Your task to perform on an android device: add a contact Image 0: 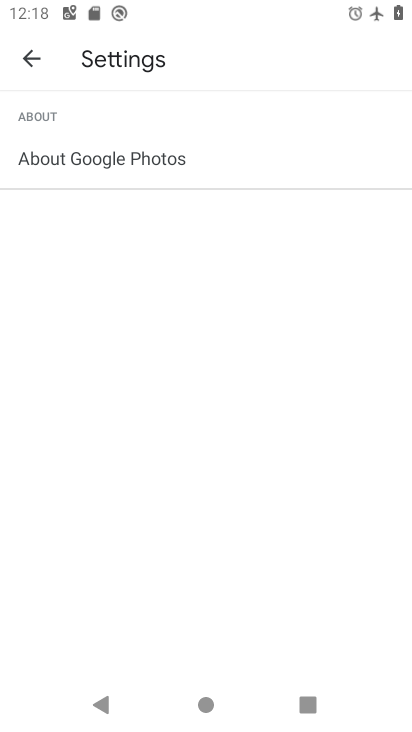
Step 0: click (24, 72)
Your task to perform on an android device: add a contact Image 1: 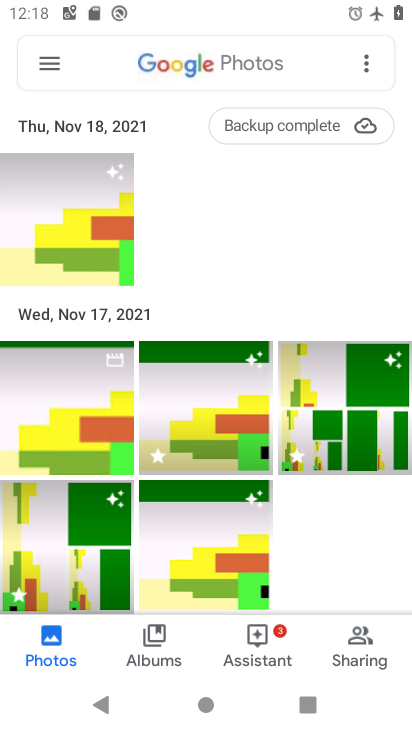
Step 1: press home button
Your task to perform on an android device: add a contact Image 2: 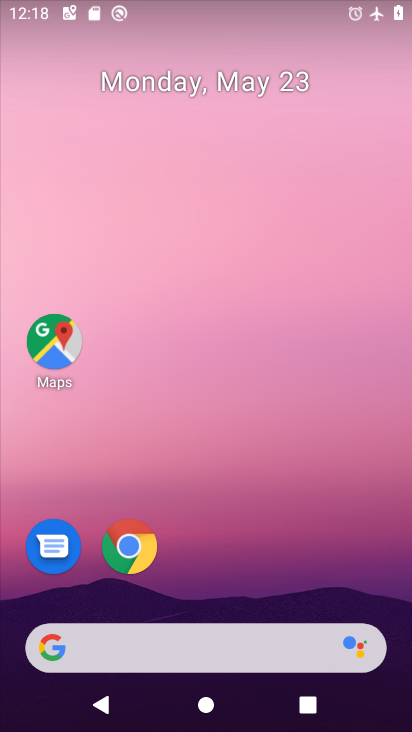
Step 2: drag from (298, 584) to (249, 2)
Your task to perform on an android device: add a contact Image 3: 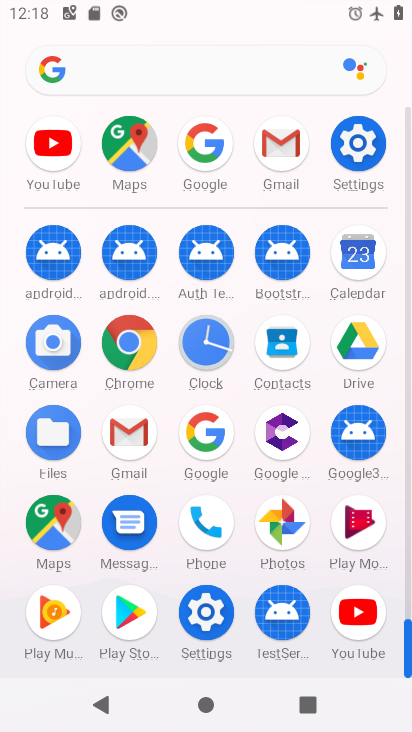
Step 3: click (298, 333)
Your task to perform on an android device: add a contact Image 4: 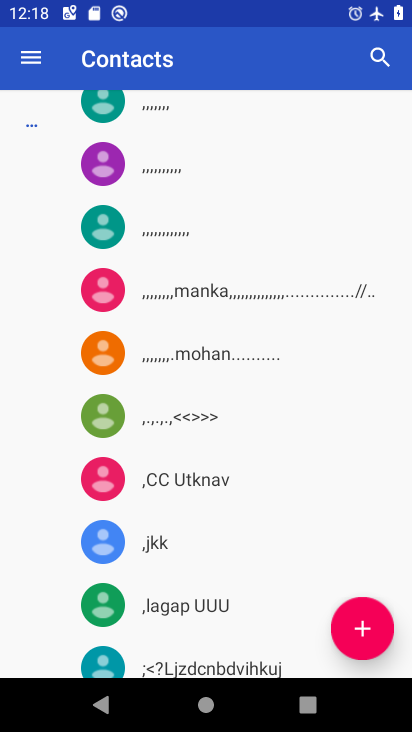
Step 4: click (369, 629)
Your task to perform on an android device: add a contact Image 5: 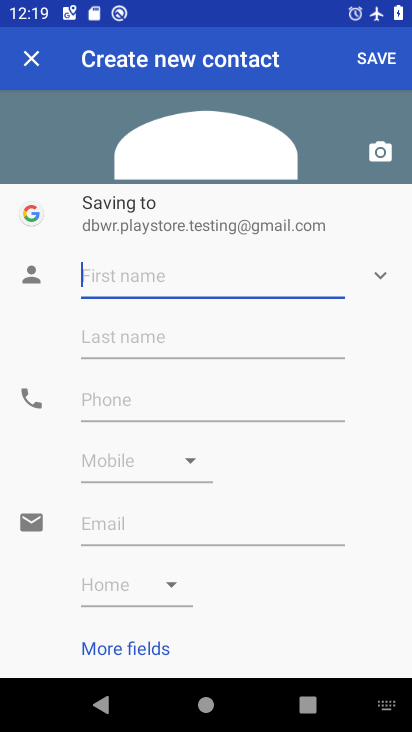
Step 5: type "ijnjin"
Your task to perform on an android device: add a contact Image 6: 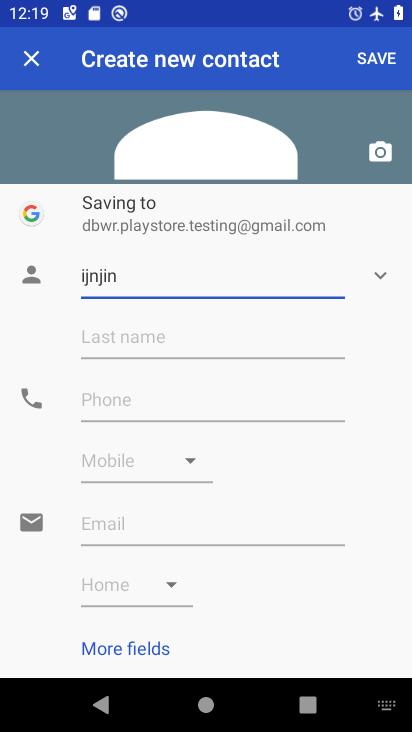
Step 6: click (119, 417)
Your task to perform on an android device: add a contact Image 7: 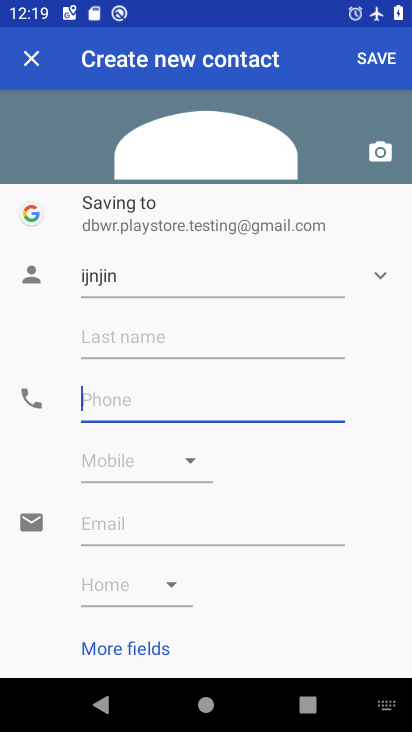
Step 7: type "9878079"
Your task to perform on an android device: add a contact Image 8: 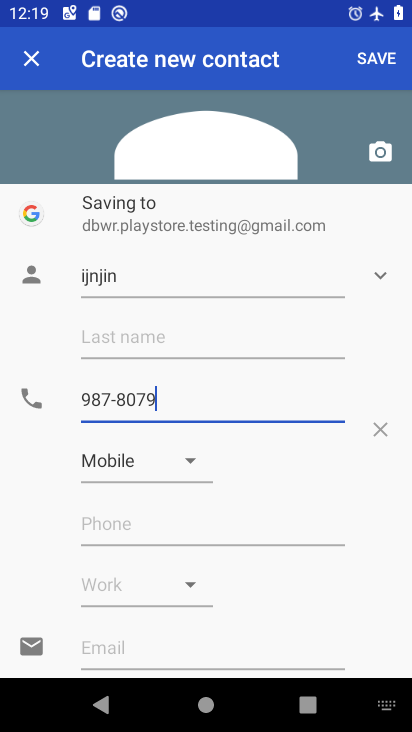
Step 8: click (371, 62)
Your task to perform on an android device: add a contact Image 9: 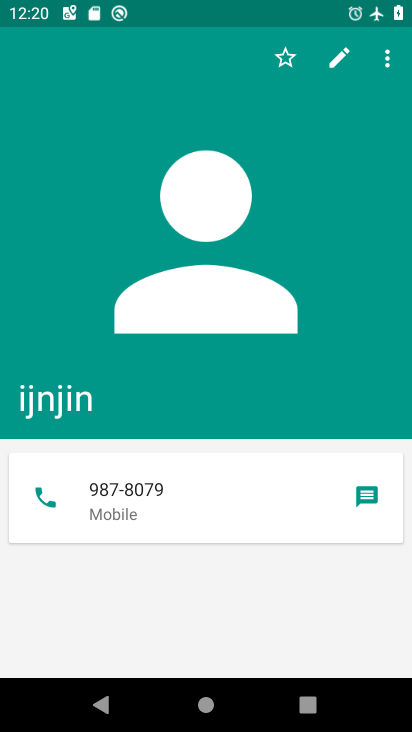
Step 9: task complete